Your task to perform on an android device: open chrome privacy settings Image 0: 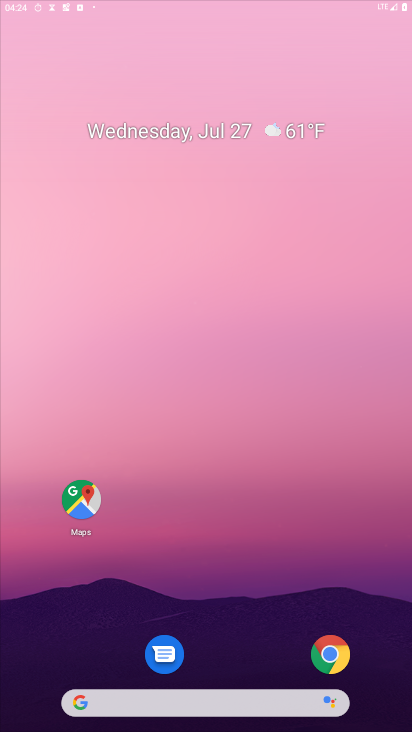
Step 0: drag from (202, 646) to (245, 156)
Your task to perform on an android device: open chrome privacy settings Image 1: 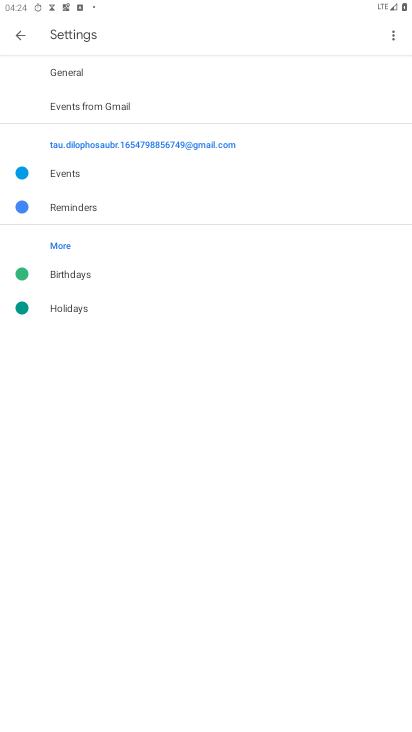
Step 1: press home button
Your task to perform on an android device: open chrome privacy settings Image 2: 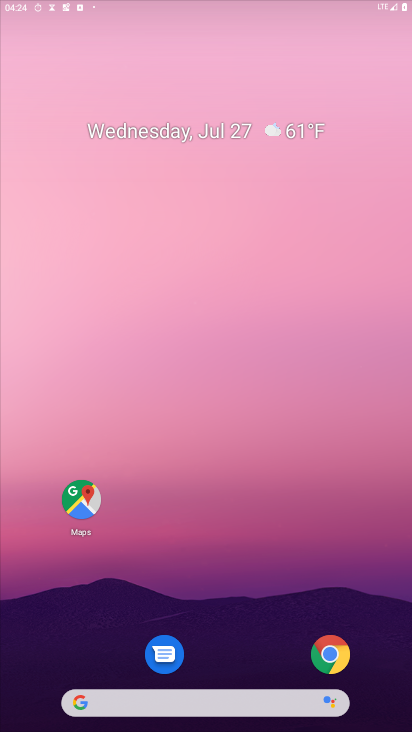
Step 2: drag from (230, 665) to (277, 35)
Your task to perform on an android device: open chrome privacy settings Image 3: 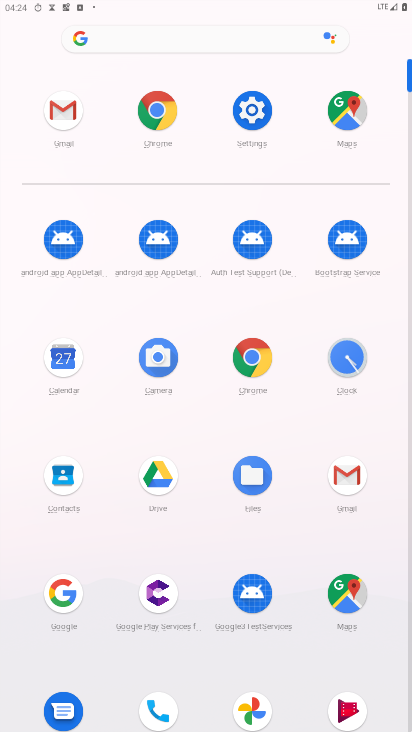
Step 3: click (58, 363)
Your task to perform on an android device: open chrome privacy settings Image 4: 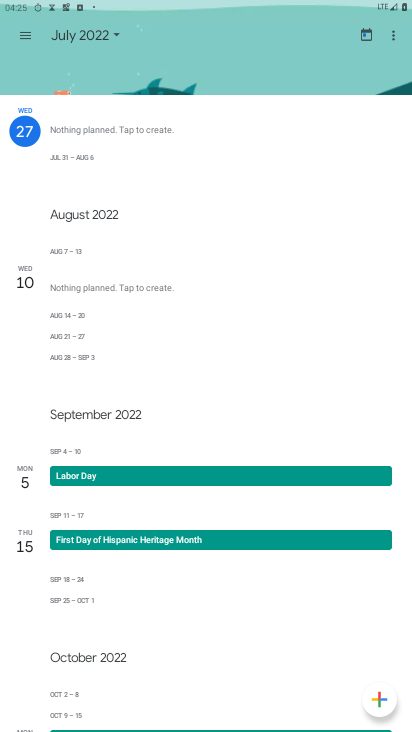
Step 4: press home button
Your task to perform on an android device: open chrome privacy settings Image 5: 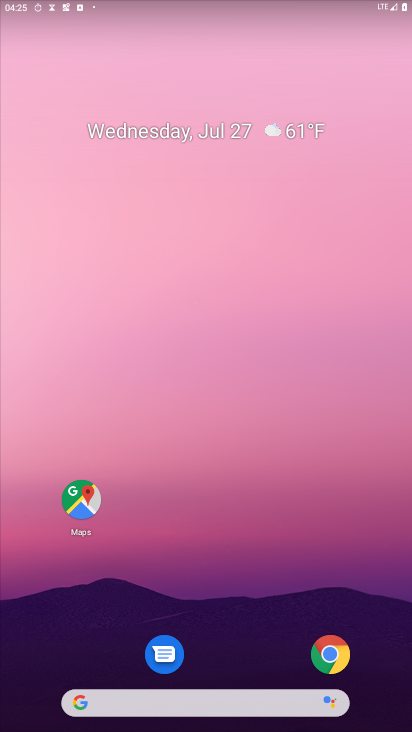
Step 5: drag from (213, 630) to (257, 161)
Your task to perform on an android device: open chrome privacy settings Image 6: 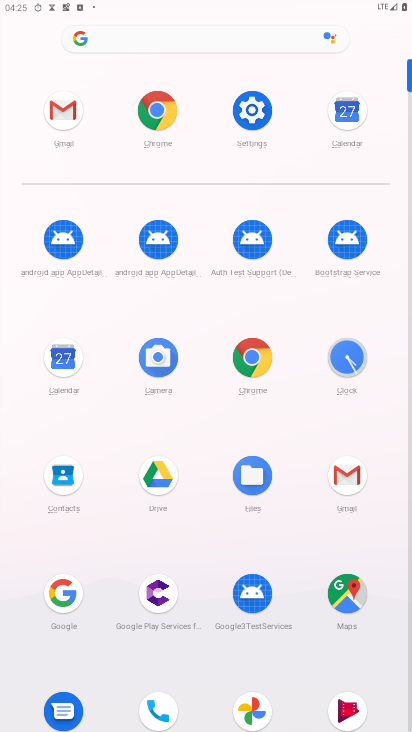
Step 6: click (266, 354)
Your task to perform on an android device: open chrome privacy settings Image 7: 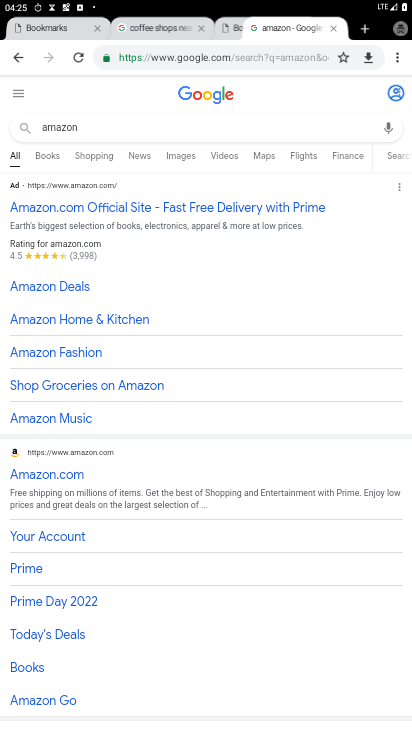
Step 7: click (390, 55)
Your task to perform on an android device: open chrome privacy settings Image 8: 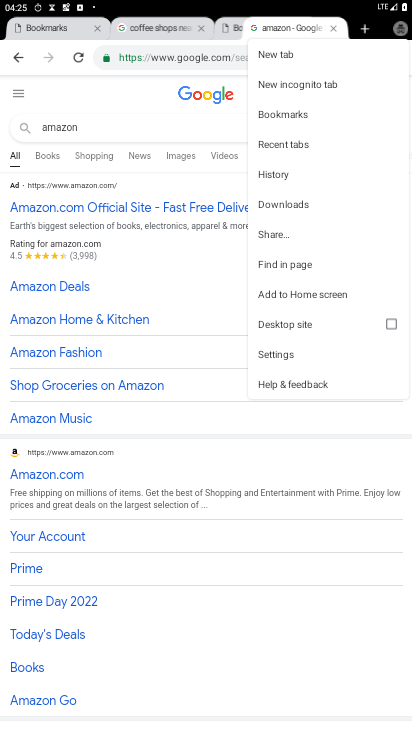
Step 8: click (267, 342)
Your task to perform on an android device: open chrome privacy settings Image 9: 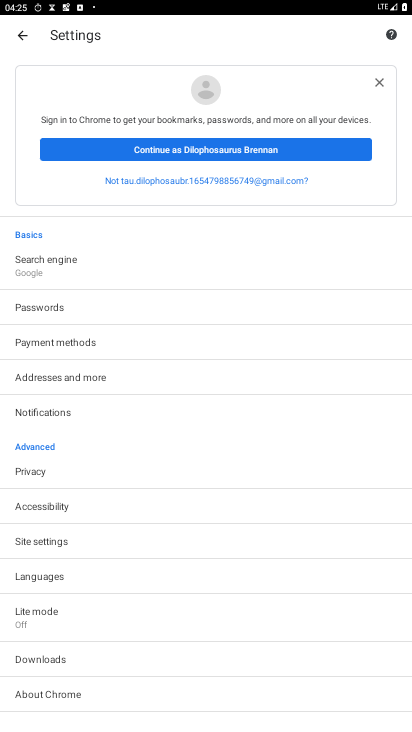
Step 9: click (61, 476)
Your task to perform on an android device: open chrome privacy settings Image 10: 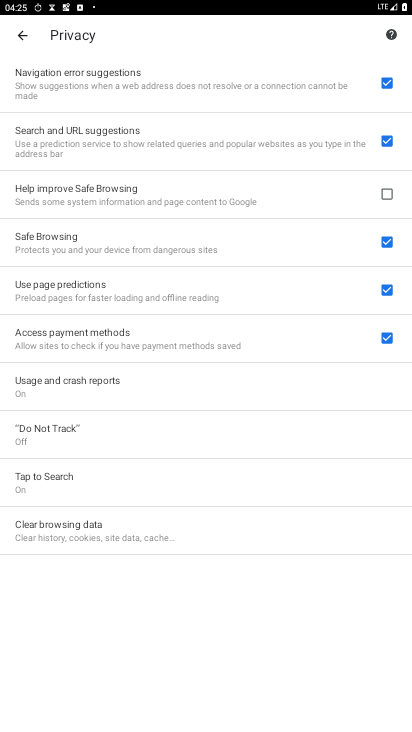
Step 10: task complete